Your task to perform on an android device: open app "Facebook Lite" (install if not already installed) Image 0: 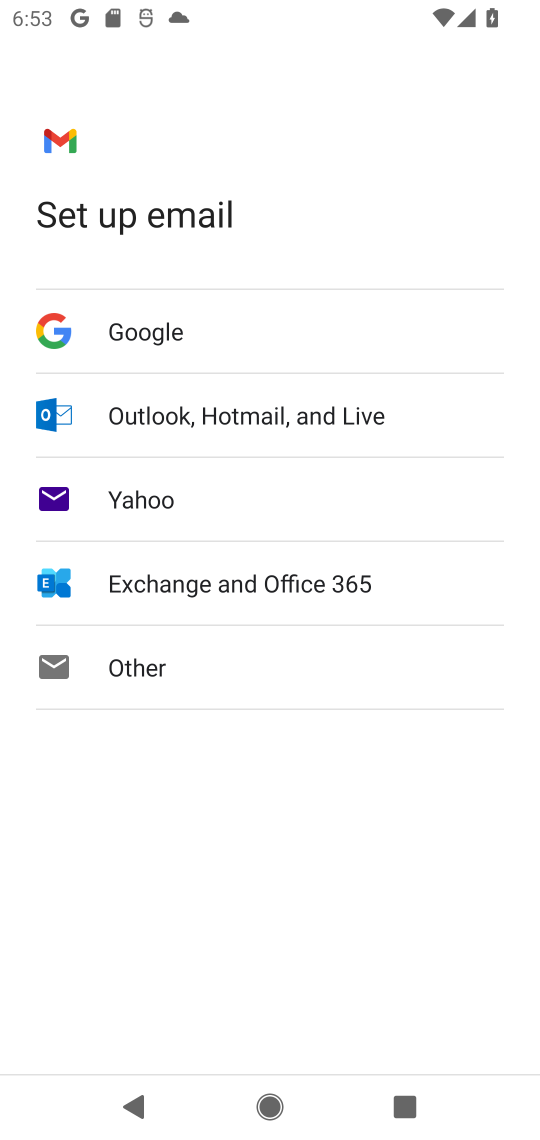
Step 0: press home button
Your task to perform on an android device: open app "Facebook Lite" (install if not already installed) Image 1: 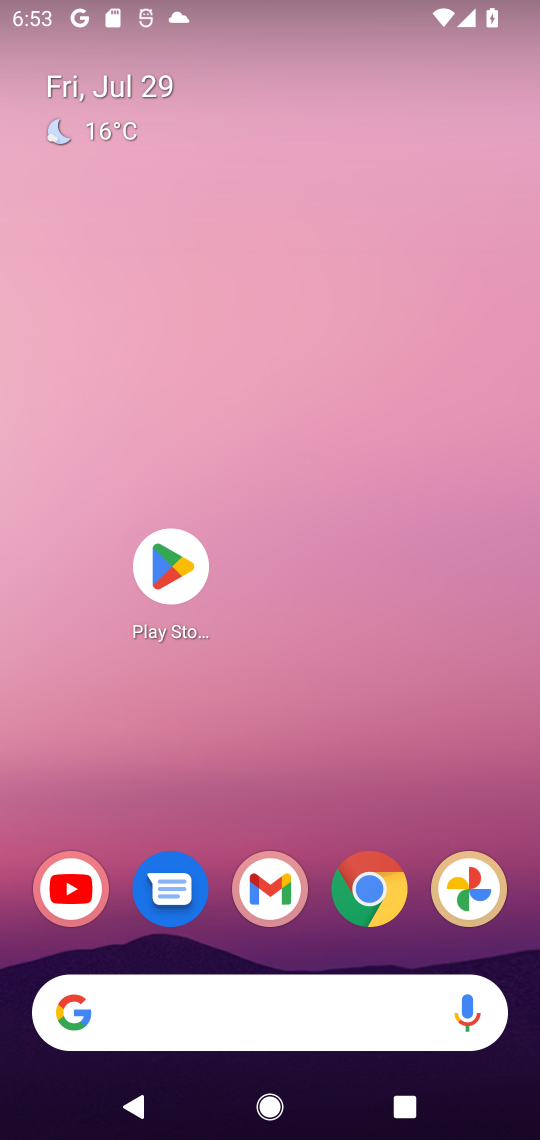
Step 1: click (171, 562)
Your task to perform on an android device: open app "Facebook Lite" (install if not already installed) Image 2: 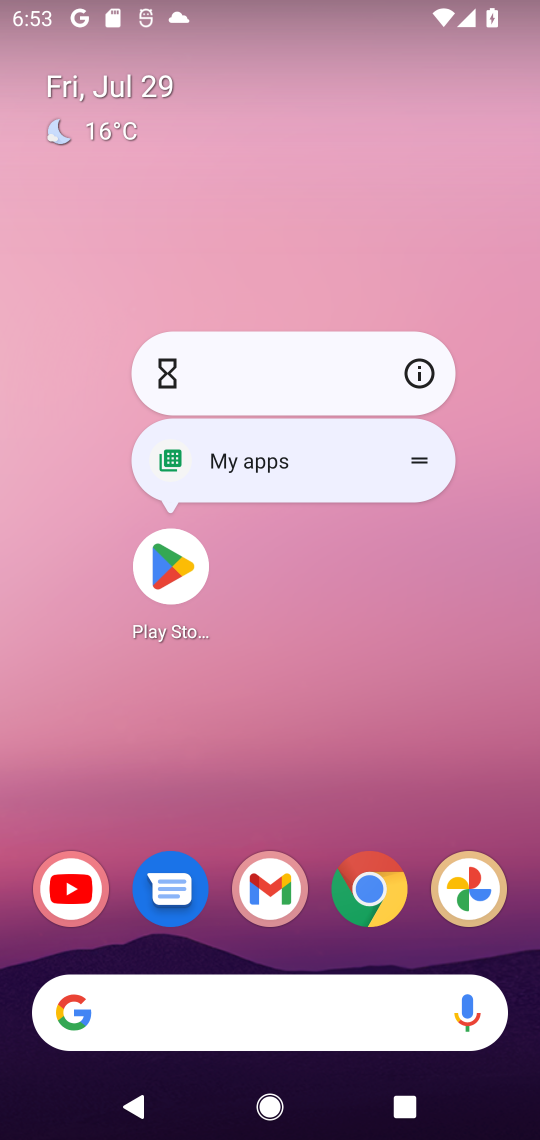
Step 2: click (170, 564)
Your task to perform on an android device: open app "Facebook Lite" (install if not already installed) Image 3: 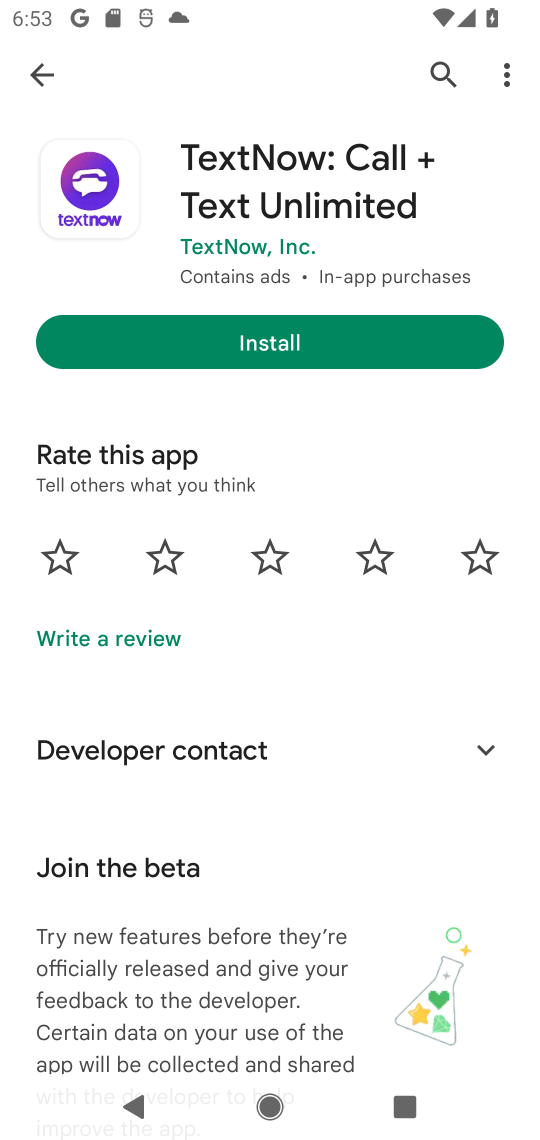
Step 3: click (441, 67)
Your task to perform on an android device: open app "Facebook Lite" (install if not already installed) Image 4: 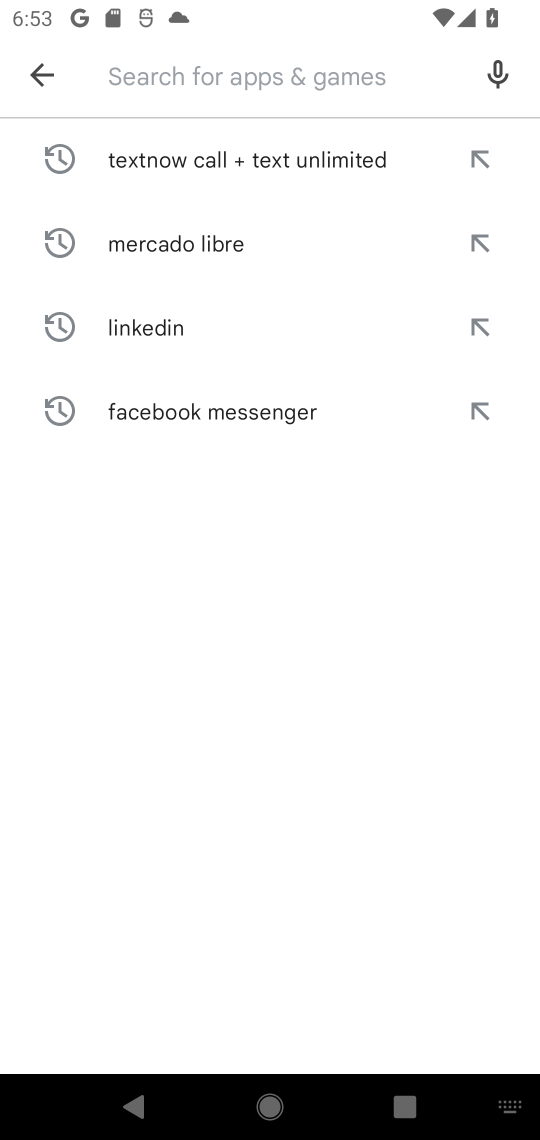
Step 4: type "Facebook Lite"
Your task to perform on an android device: open app "Facebook Lite" (install if not already installed) Image 5: 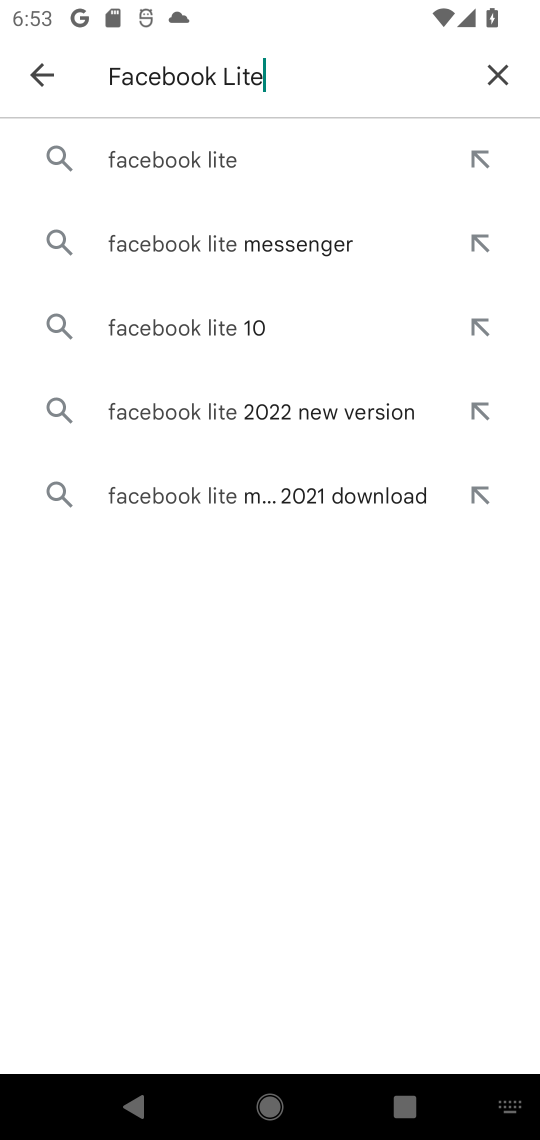
Step 5: click (216, 161)
Your task to perform on an android device: open app "Facebook Lite" (install if not already installed) Image 6: 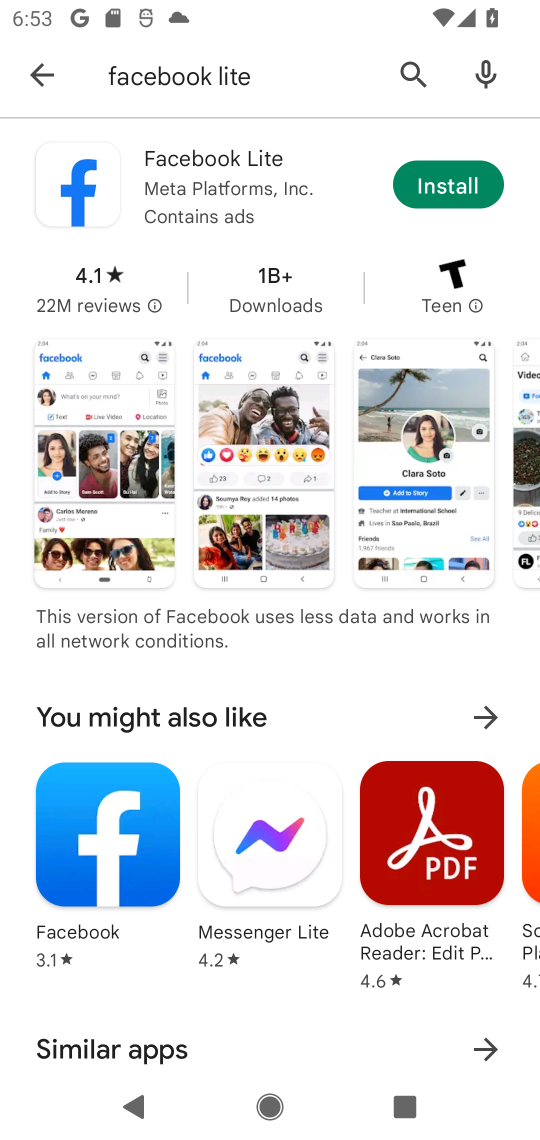
Step 6: click (432, 184)
Your task to perform on an android device: open app "Facebook Lite" (install if not already installed) Image 7: 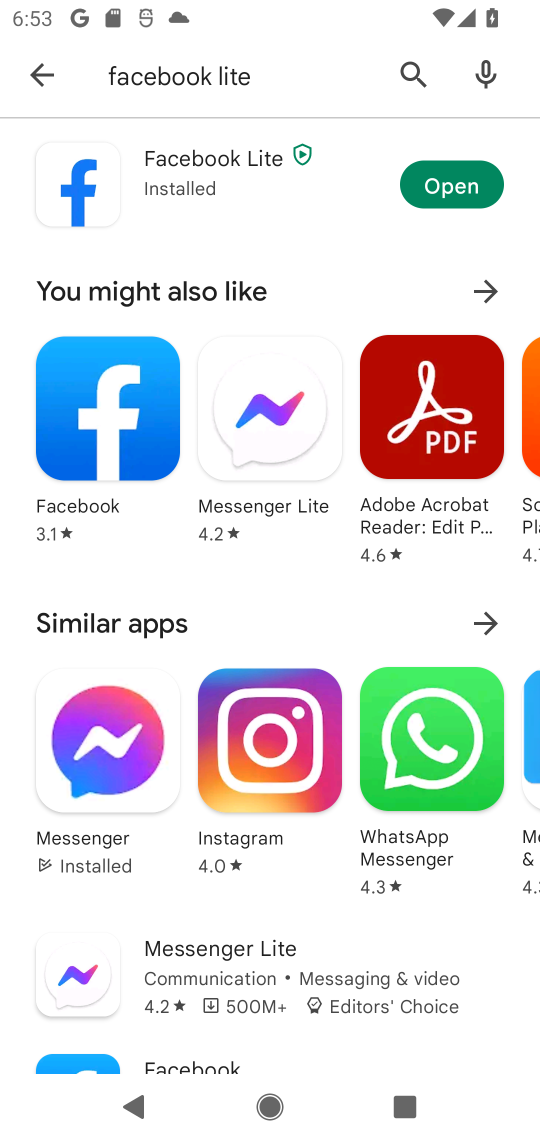
Step 7: click (436, 184)
Your task to perform on an android device: open app "Facebook Lite" (install if not already installed) Image 8: 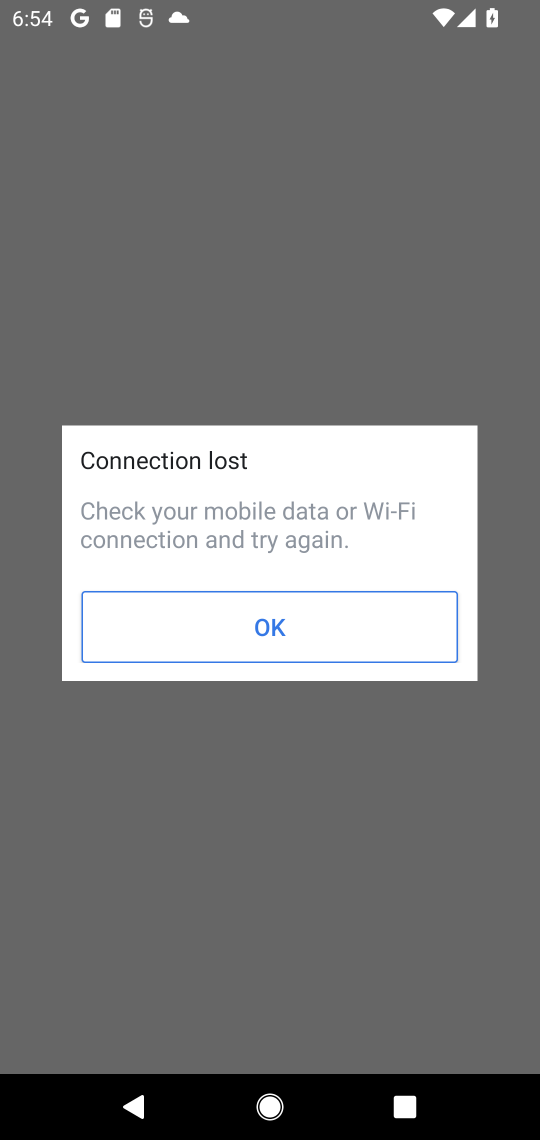
Step 8: task complete